Your task to perform on an android device: Open maps Image 0: 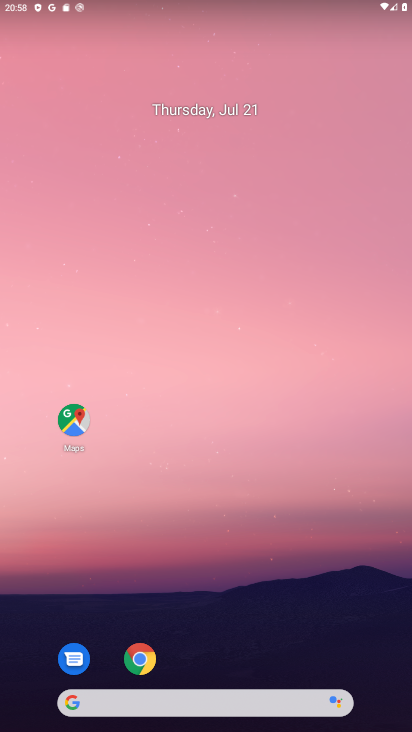
Step 0: click (66, 406)
Your task to perform on an android device: Open maps Image 1: 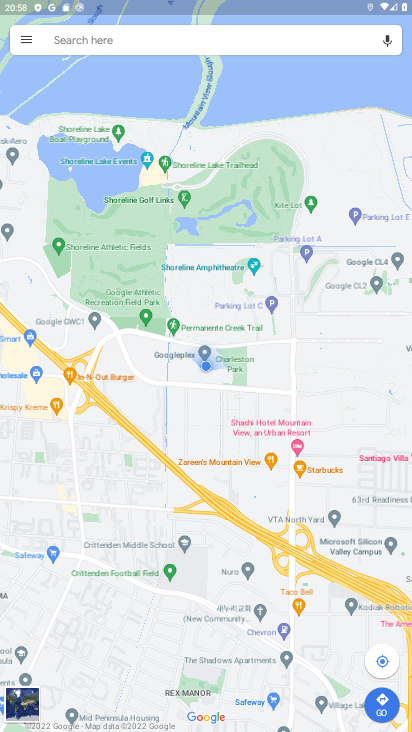
Step 1: task complete